Your task to perform on an android device: Do I have any events tomorrow? Image 0: 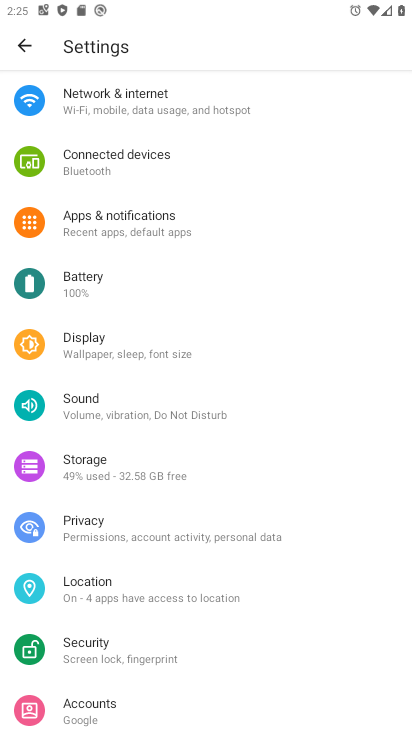
Step 0: press home button
Your task to perform on an android device: Do I have any events tomorrow? Image 1: 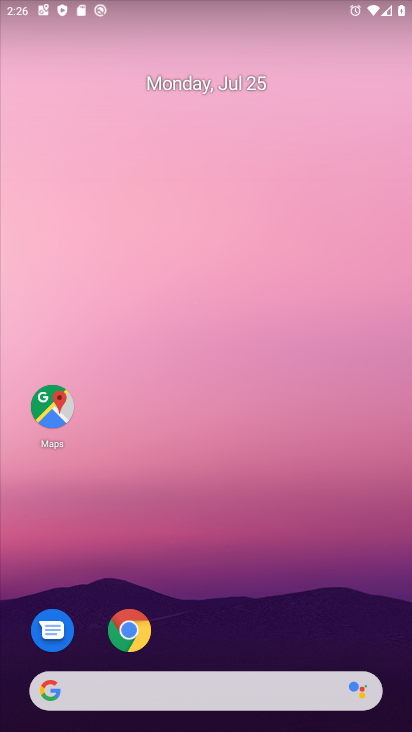
Step 1: drag from (222, 621) to (217, 124)
Your task to perform on an android device: Do I have any events tomorrow? Image 2: 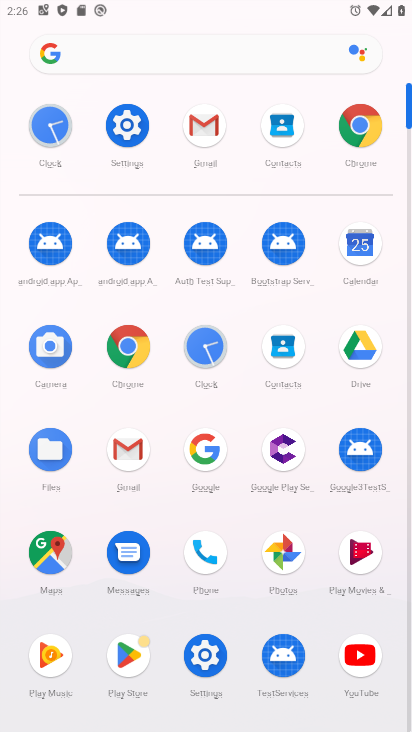
Step 2: click (350, 256)
Your task to perform on an android device: Do I have any events tomorrow? Image 3: 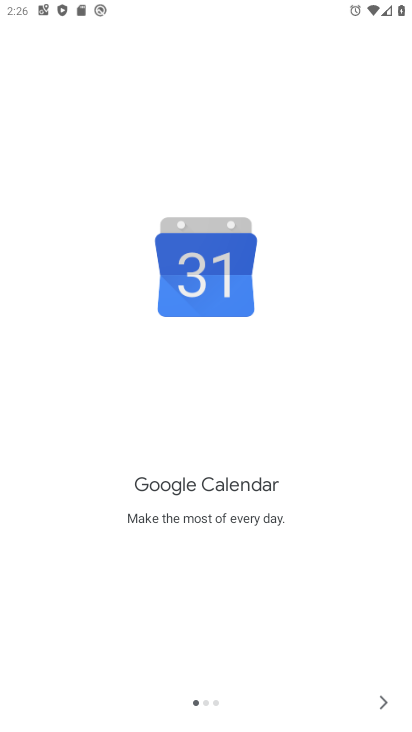
Step 3: click (391, 703)
Your task to perform on an android device: Do I have any events tomorrow? Image 4: 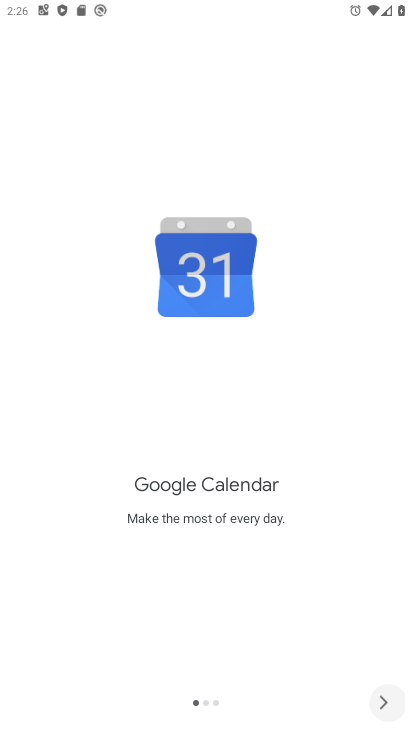
Step 4: click (391, 703)
Your task to perform on an android device: Do I have any events tomorrow? Image 5: 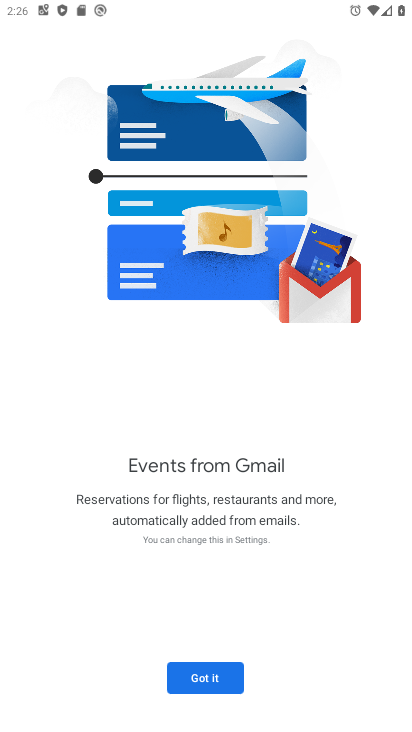
Step 5: click (228, 671)
Your task to perform on an android device: Do I have any events tomorrow? Image 6: 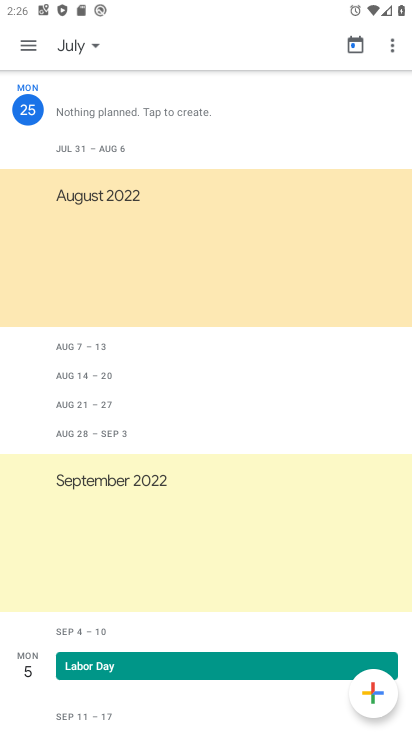
Step 6: task complete